Your task to perform on an android device: Open eBay Image 0: 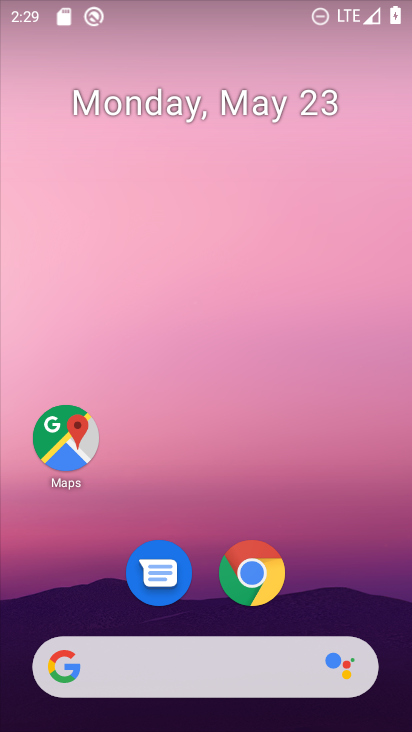
Step 0: click (249, 581)
Your task to perform on an android device: Open eBay Image 1: 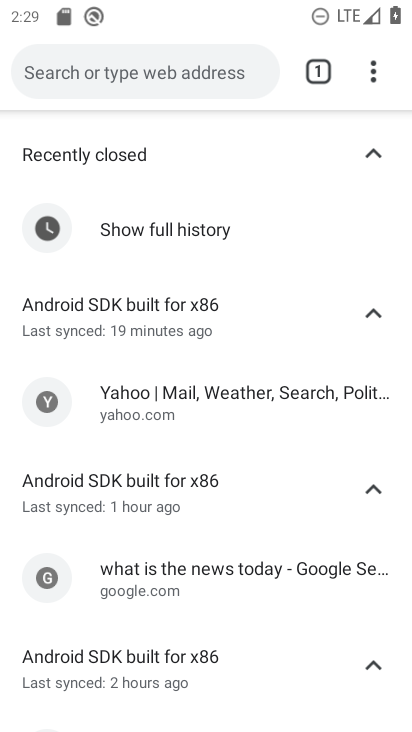
Step 1: click (143, 70)
Your task to perform on an android device: Open eBay Image 2: 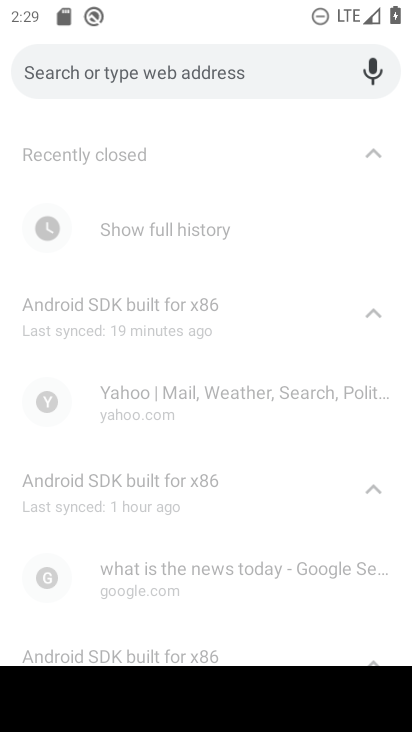
Step 2: type "ebay"
Your task to perform on an android device: Open eBay Image 3: 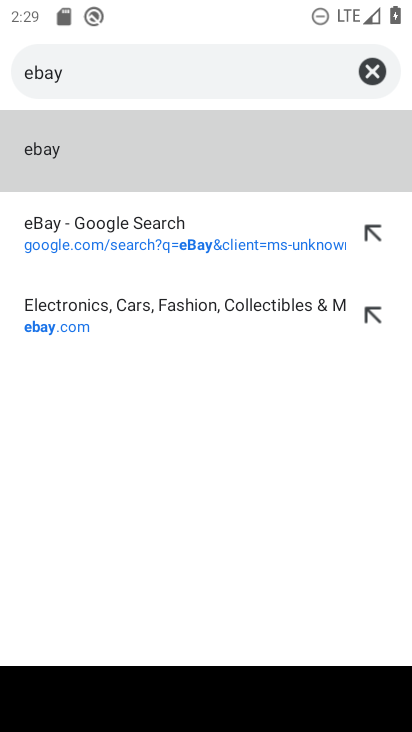
Step 3: click (42, 326)
Your task to perform on an android device: Open eBay Image 4: 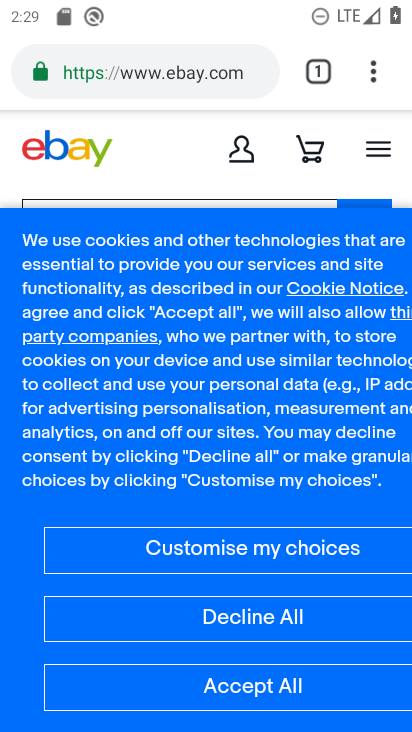
Step 4: task complete